Your task to perform on an android device: open wifi settings Image 0: 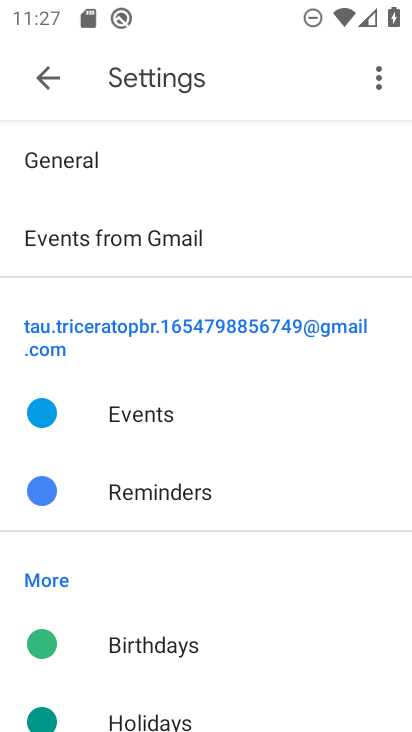
Step 0: press home button
Your task to perform on an android device: open wifi settings Image 1: 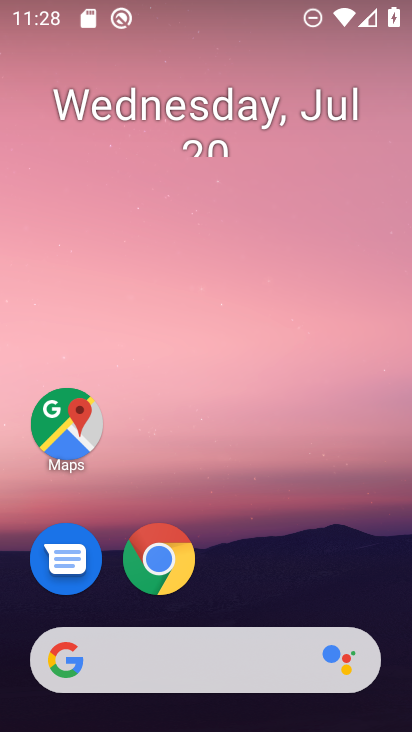
Step 1: drag from (157, 630) to (242, 175)
Your task to perform on an android device: open wifi settings Image 2: 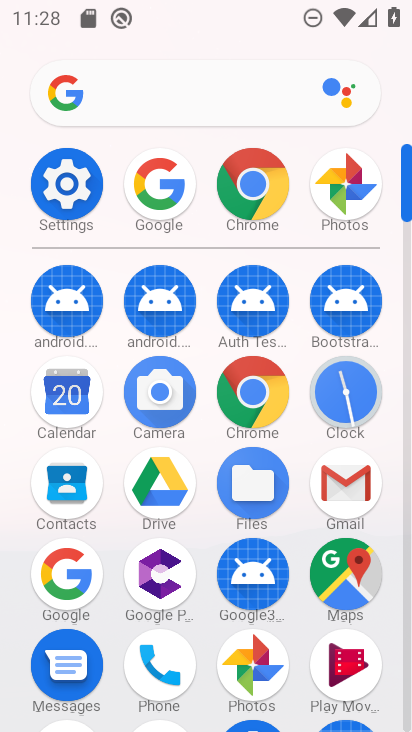
Step 2: click (77, 219)
Your task to perform on an android device: open wifi settings Image 3: 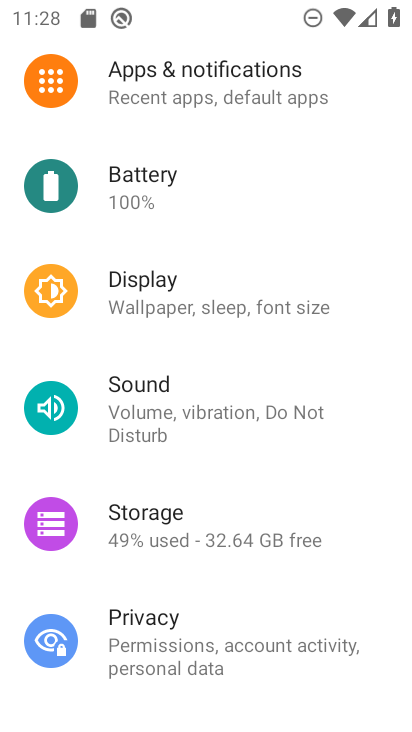
Step 3: drag from (153, 200) to (229, 678)
Your task to perform on an android device: open wifi settings Image 4: 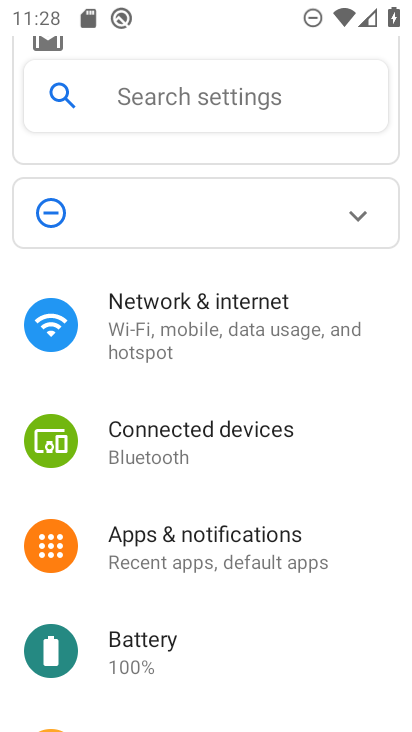
Step 4: drag from (235, 320) to (219, 685)
Your task to perform on an android device: open wifi settings Image 5: 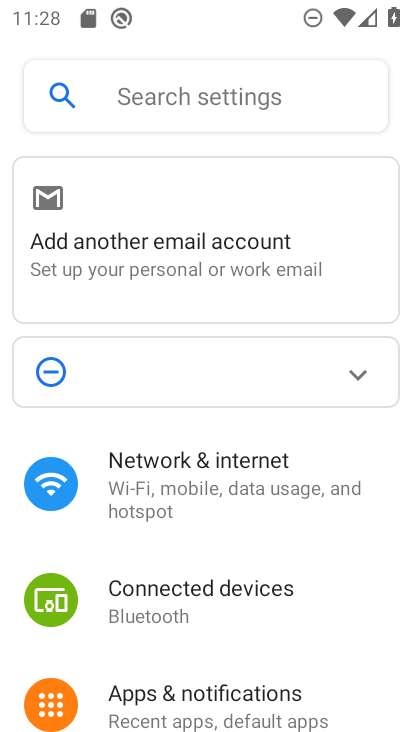
Step 5: click (219, 469)
Your task to perform on an android device: open wifi settings Image 6: 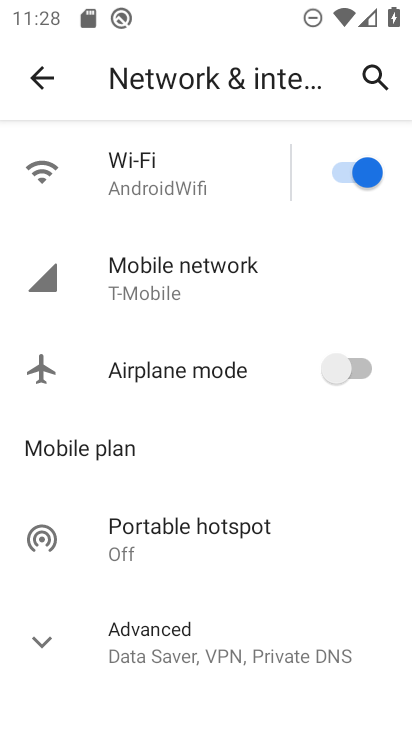
Step 6: click (157, 182)
Your task to perform on an android device: open wifi settings Image 7: 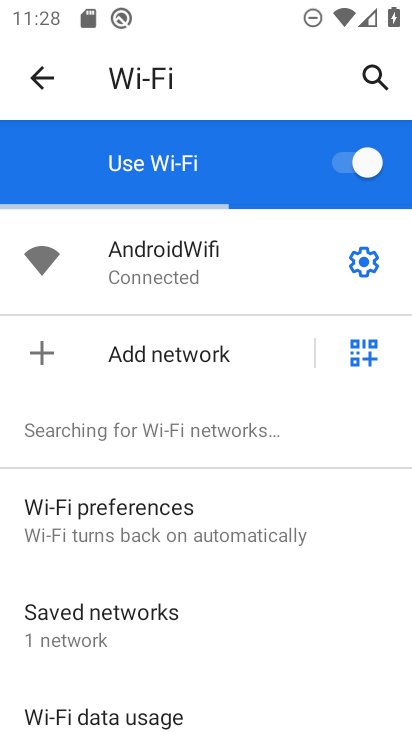
Step 7: task complete